Your task to perform on an android device: toggle notification dots Image 0: 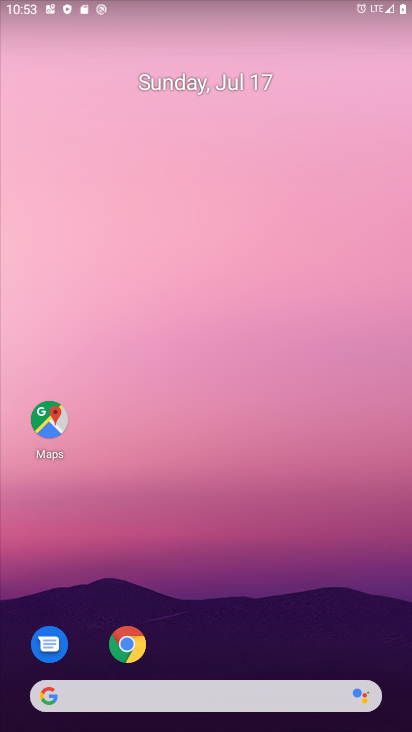
Step 0: drag from (302, 621) to (275, 58)
Your task to perform on an android device: toggle notification dots Image 1: 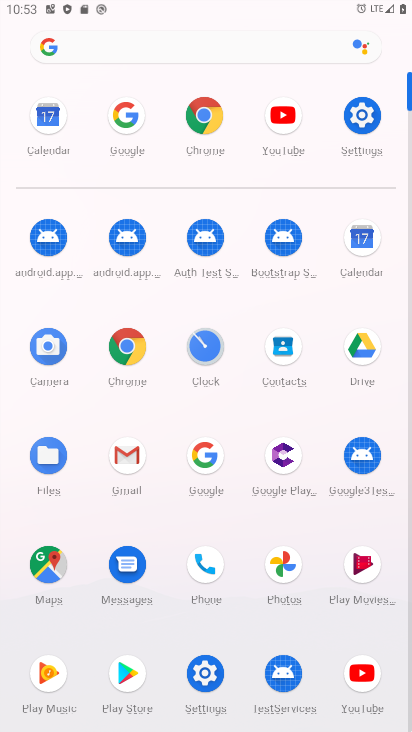
Step 1: click (367, 120)
Your task to perform on an android device: toggle notification dots Image 2: 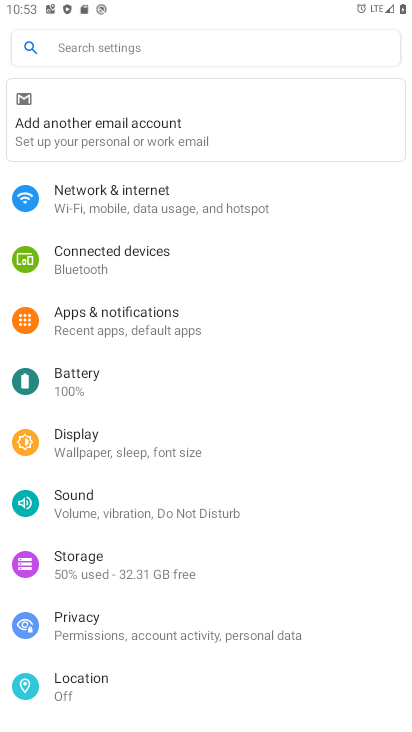
Step 2: click (153, 322)
Your task to perform on an android device: toggle notification dots Image 3: 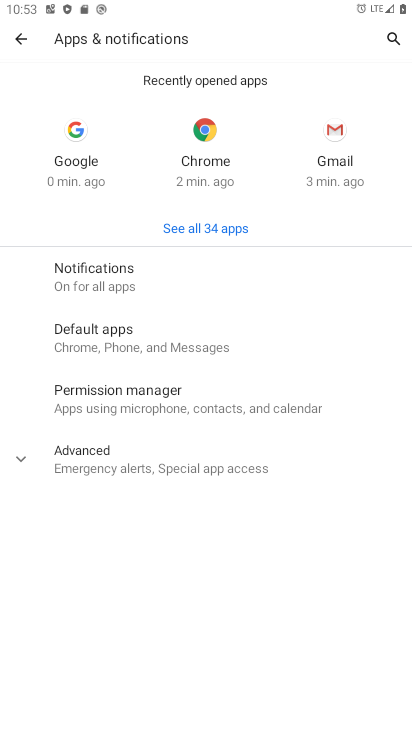
Step 3: click (101, 467)
Your task to perform on an android device: toggle notification dots Image 4: 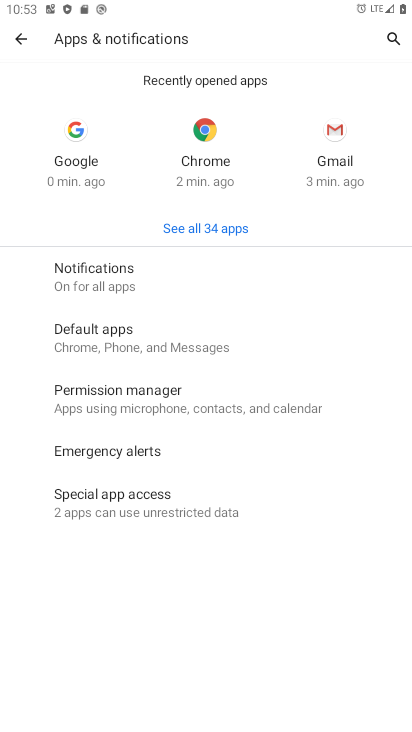
Step 4: click (71, 283)
Your task to perform on an android device: toggle notification dots Image 5: 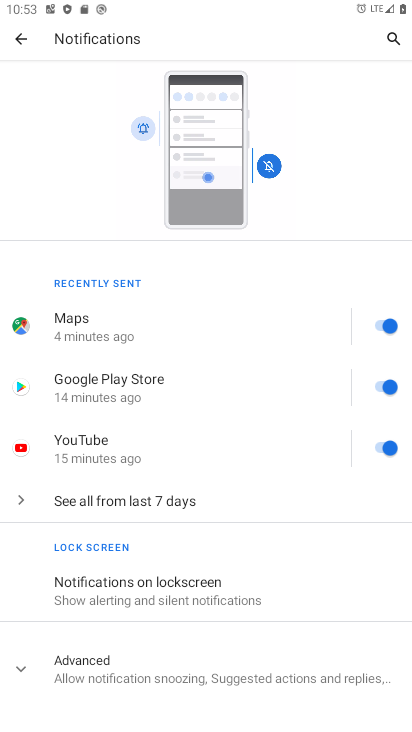
Step 5: drag from (184, 618) to (152, 131)
Your task to perform on an android device: toggle notification dots Image 6: 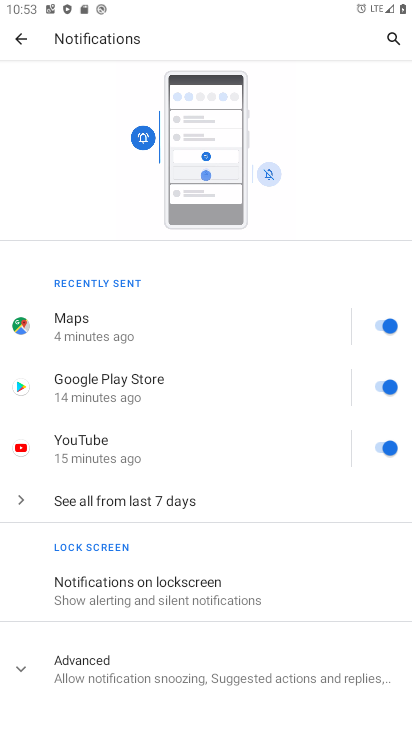
Step 6: click (145, 683)
Your task to perform on an android device: toggle notification dots Image 7: 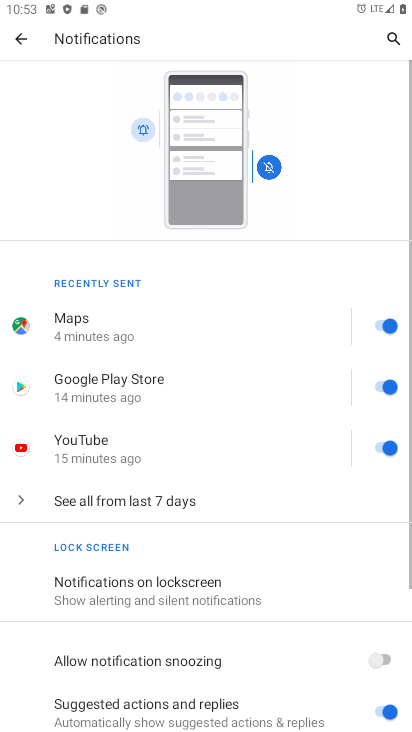
Step 7: drag from (210, 625) to (204, 120)
Your task to perform on an android device: toggle notification dots Image 8: 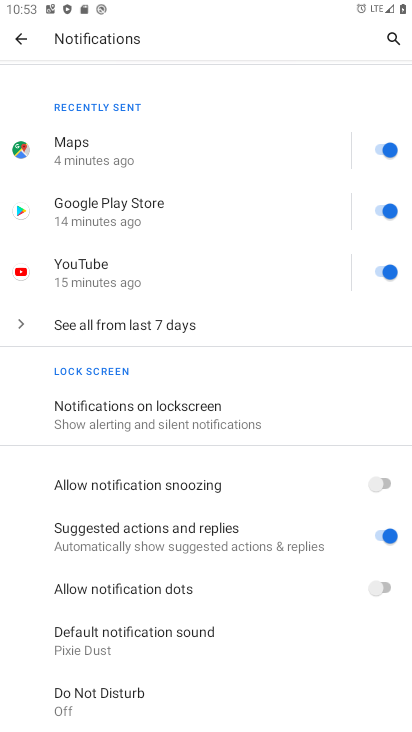
Step 8: click (380, 597)
Your task to perform on an android device: toggle notification dots Image 9: 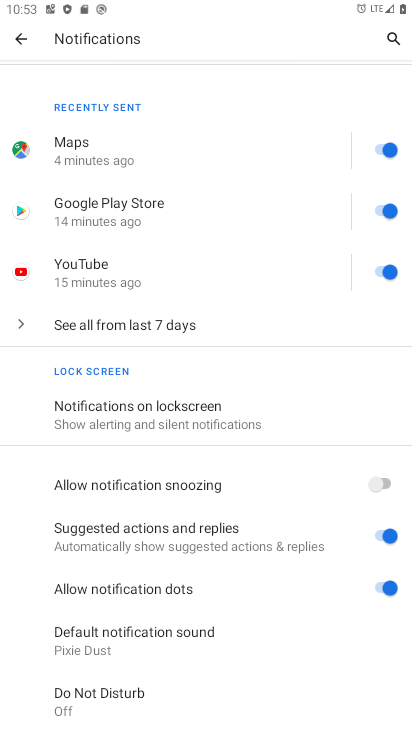
Step 9: task complete